Your task to perform on an android device: see tabs open on other devices in the chrome app Image 0: 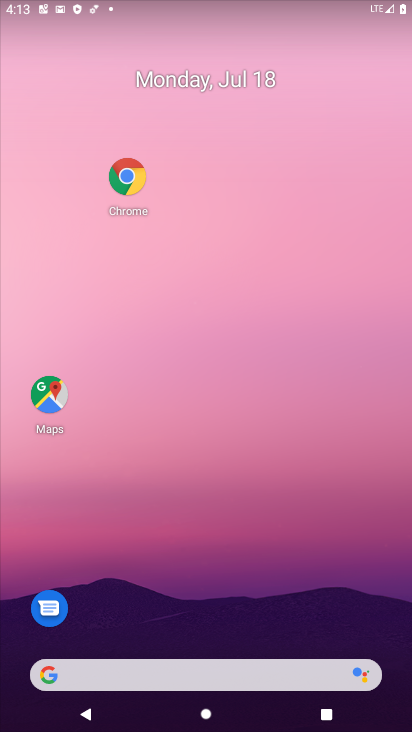
Step 0: drag from (230, 688) to (296, 204)
Your task to perform on an android device: see tabs open on other devices in the chrome app Image 1: 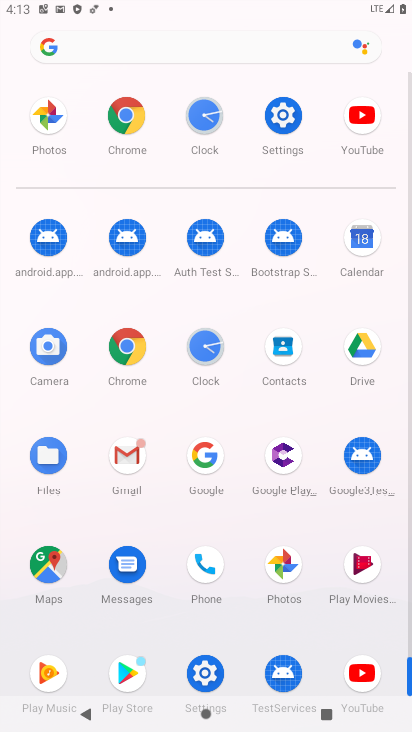
Step 1: click (131, 357)
Your task to perform on an android device: see tabs open on other devices in the chrome app Image 2: 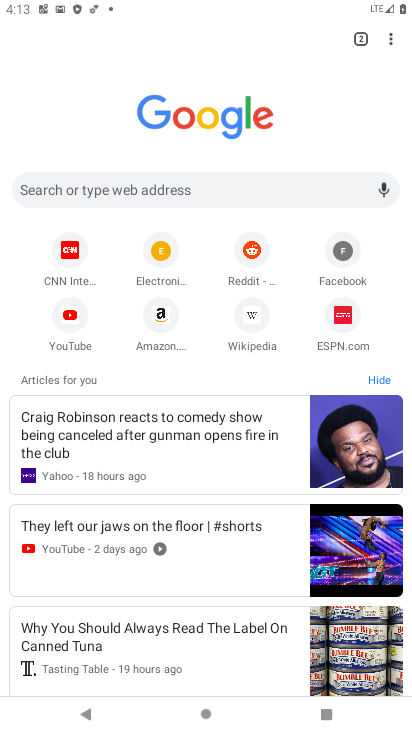
Step 2: task complete